Your task to perform on an android device: Go to settings Image 0: 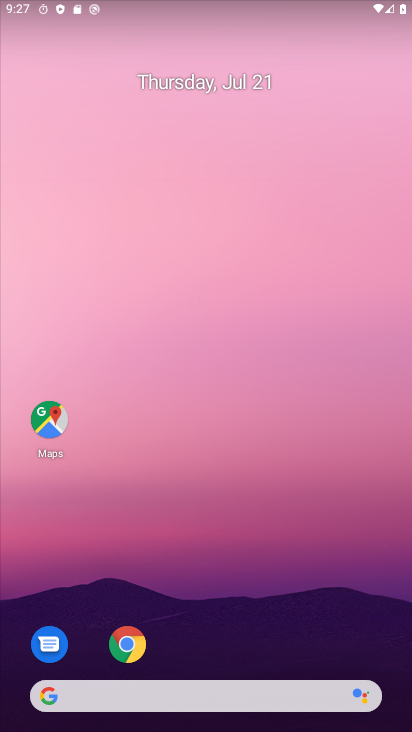
Step 0: drag from (246, 336) to (246, 285)
Your task to perform on an android device: Go to settings Image 1: 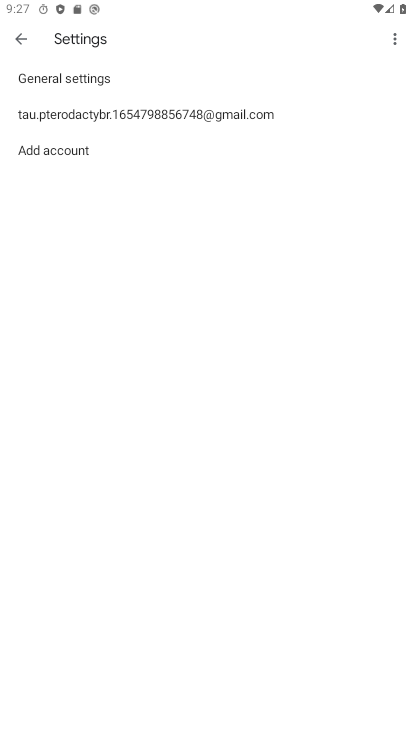
Step 1: click (16, 46)
Your task to perform on an android device: Go to settings Image 2: 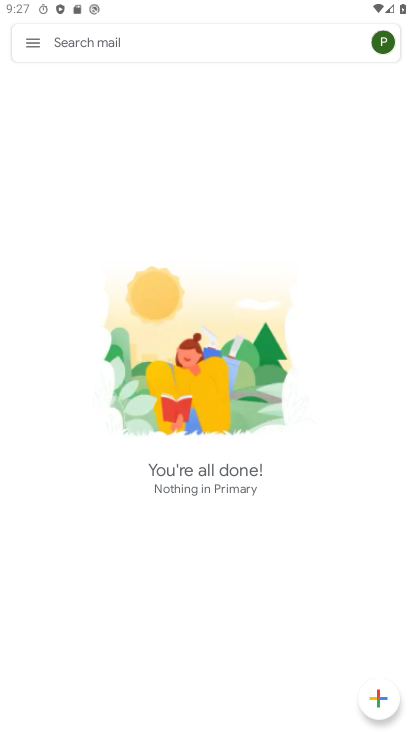
Step 2: click (34, 29)
Your task to perform on an android device: Go to settings Image 3: 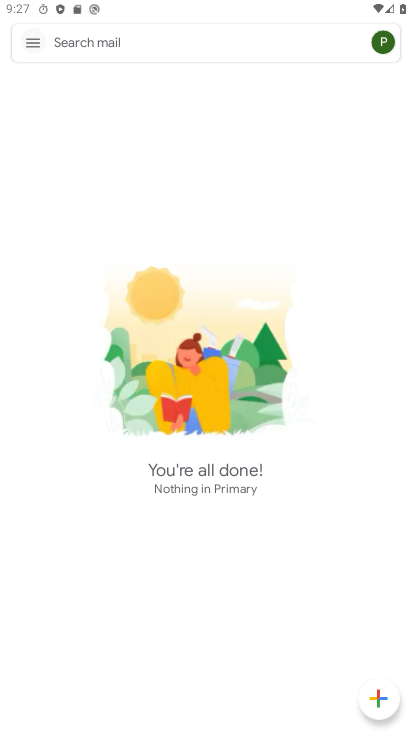
Step 3: click (35, 29)
Your task to perform on an android device: Go to settings Image 4: 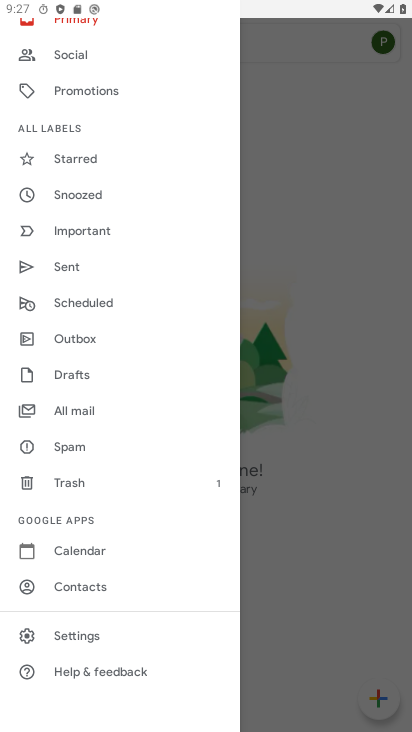
Step 4: click (274, 306)
Your task to perform on an android device: Go to settings Image 5: 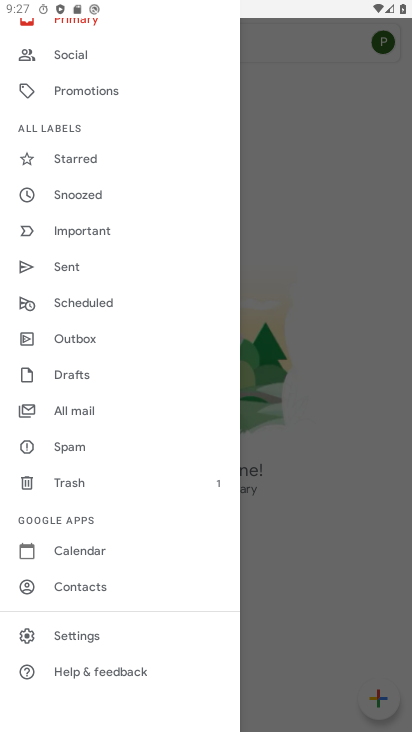
Step 5: press back button
Your task to perform on an android device: Go to settings Image 6: 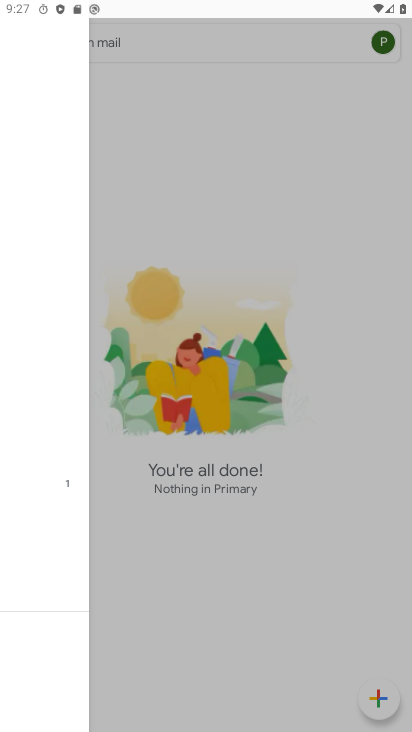
Step 6: press back button
Your task to perform on an android device: Go to settings Image 7: 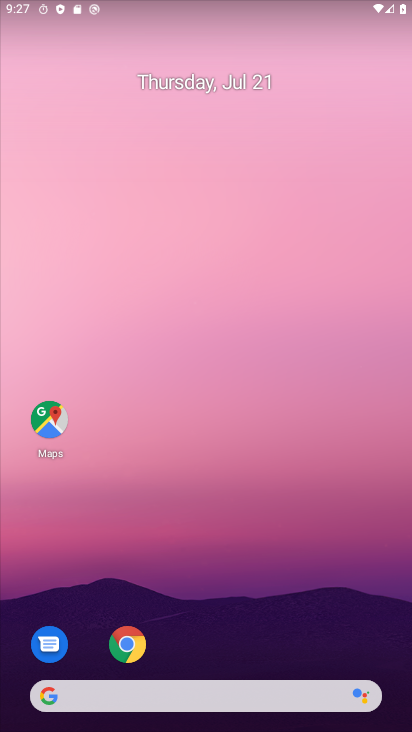
Step 7: drag from (161, 518) to (175, 269)
Your task to perform on an android device: Go to settings Image 8: 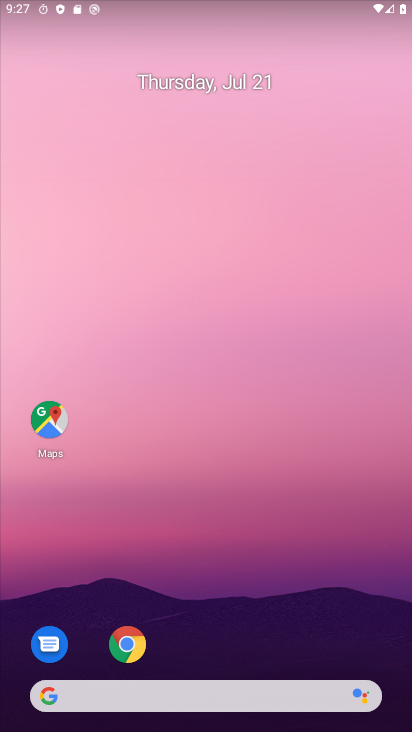
Step 8: drag from (197, 571) to (179, 137)
Your task to perform on an android device: Go to settings Image 9: 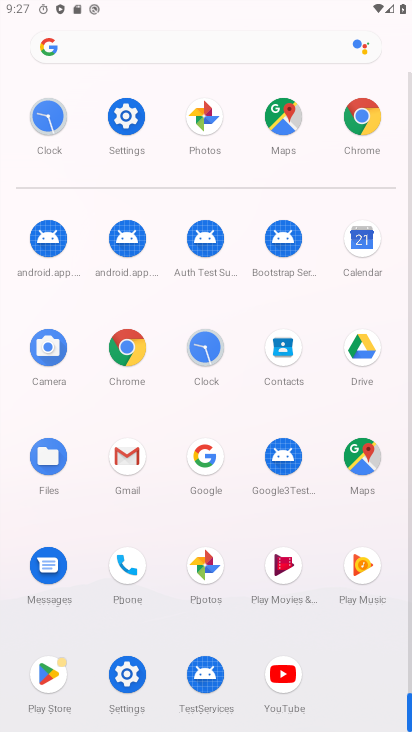
Step 9: click (127, 129)
Your task to perform on an android device: Go to settings Image 10: 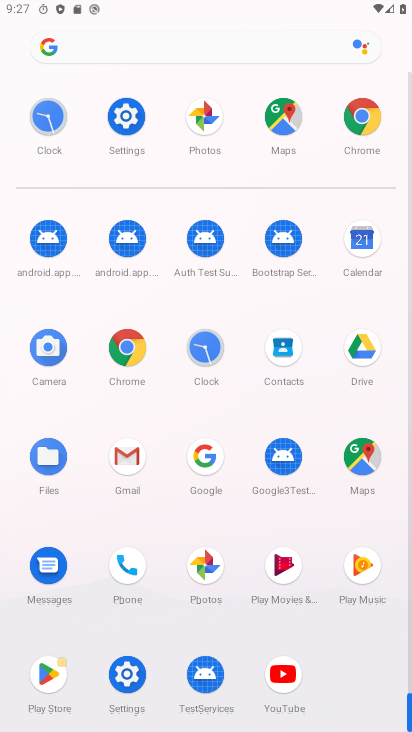
Step 10: click (120, 127)
Your task to perform on an android device: Go to settings Image 11: 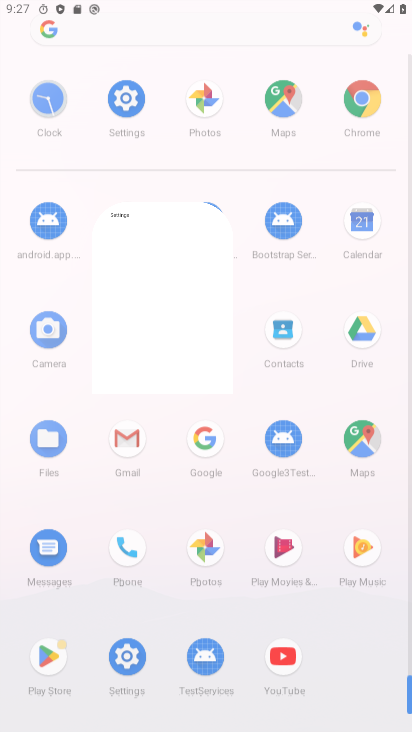
Step 11: click (120, 127)
Your task to perform on an android device: Go to settings Image 12: 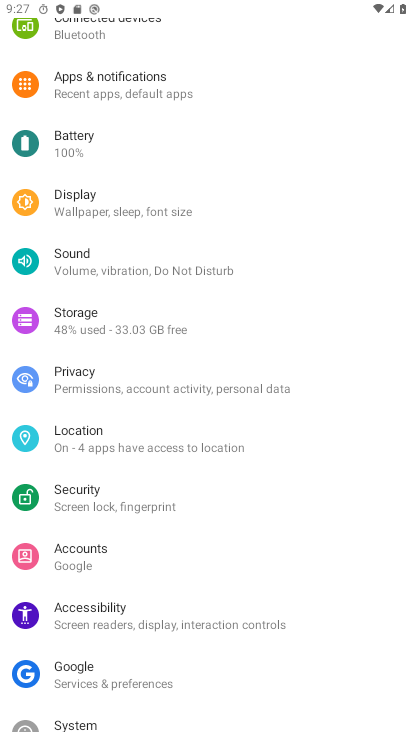
Step 12: task complete